Your task to perform on an android device: delete the emails in spam in the gmail app Image 0: 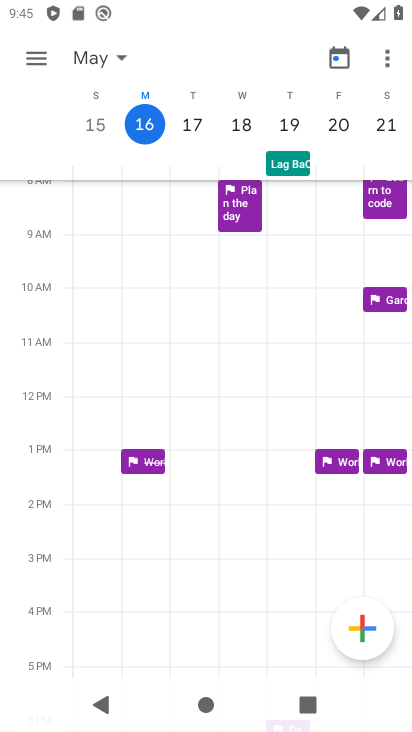
Step 0: press back button
Your task to perform on an android device: delete the emails in spam in the gmail app Image 1: 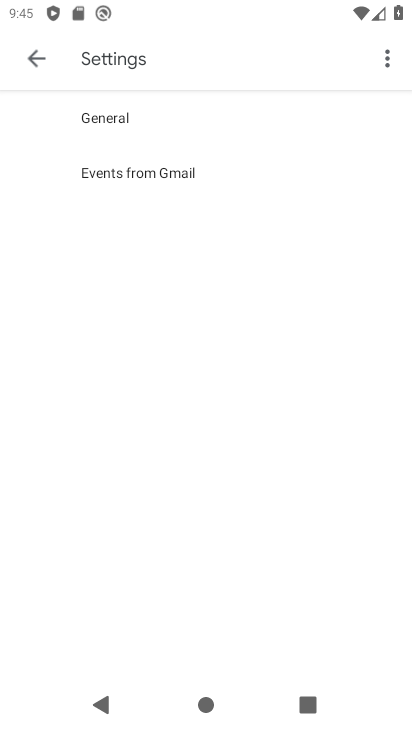
Step 1: press back button
Your task to perform on an android device: delete the emails in spam in the gmail app Image 2: 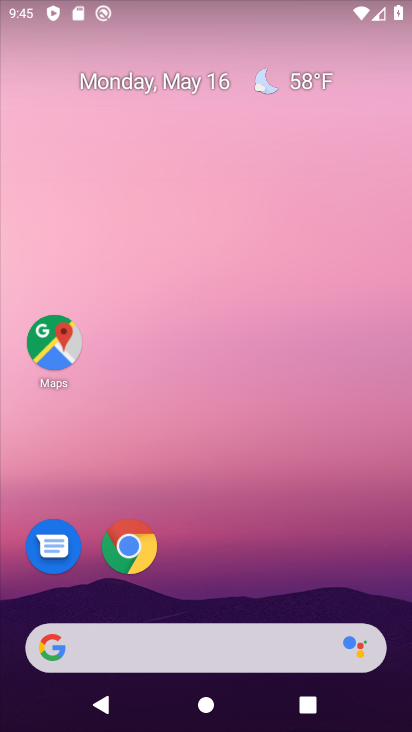
Step 2: drag from (239, 589) to (225, 71)
Your task to perform on an android device: delete the emails in spam in the gmail app Image 3: 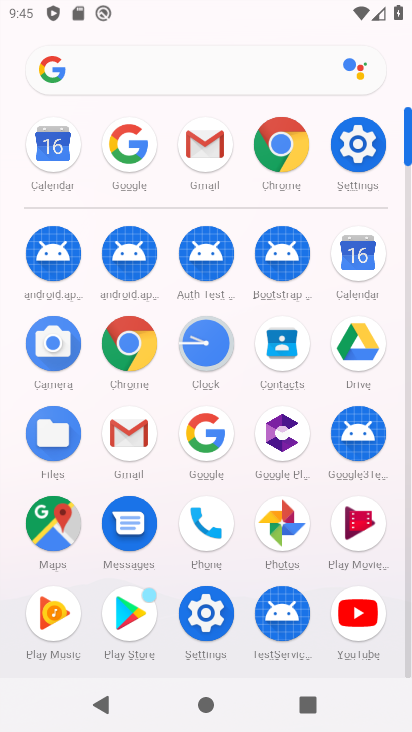
Step 3: click (206, 142)
Your task to perform on an android device: delete the emails in spam in the gmail app Image 4: 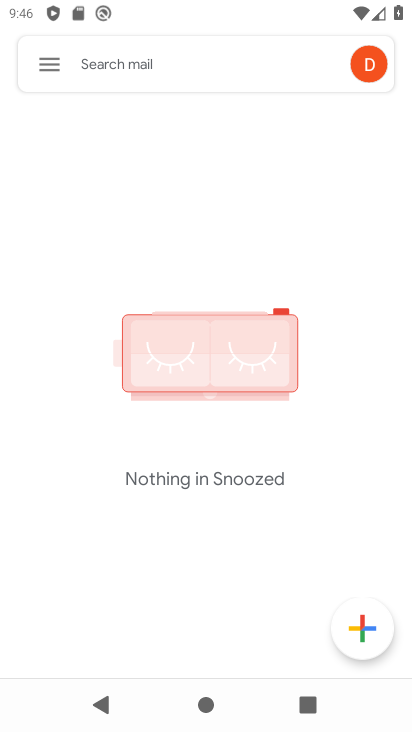
Step 4: click (54, 64)
Your task to perform on an android device: delete the emails in spam in the gmail app Image 5: 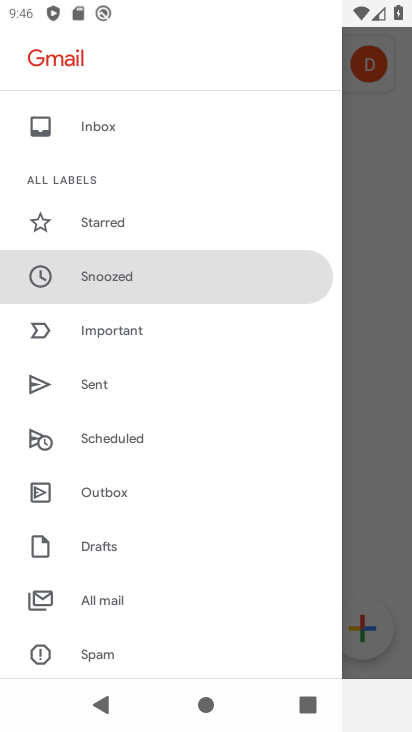
Step 5: drag from (118, 519) to (134, 461)
Your task to perform on an android device: delete the emails in spam in the gmail app Image 6: 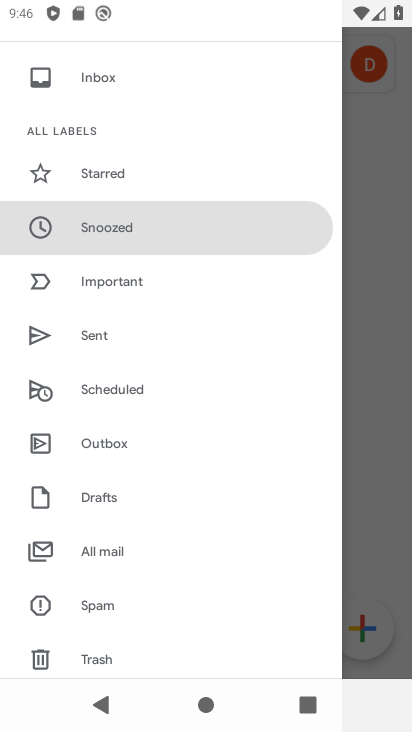
Step 6: click (85, 605)
Your task to perform on an android device: delete the emails in spam in the gmail app Image 7: 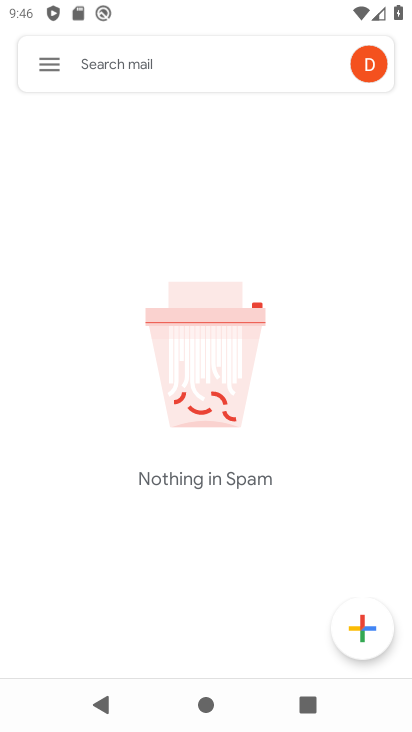
Step 7: task complete